Your task to perform on an android device: toggle wifi Image 0: 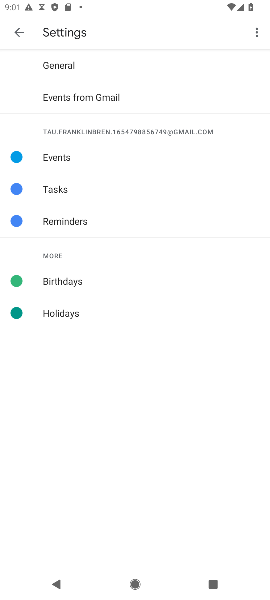
Step 0: press back button
Your task to perform on an android device: toggle wifi Image 1: 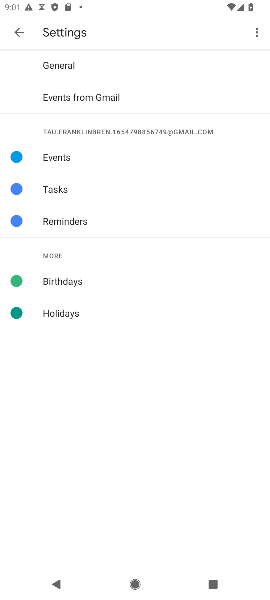
Step 1: press home button
Your task to perform on an android device: toggle wifi Image 2: 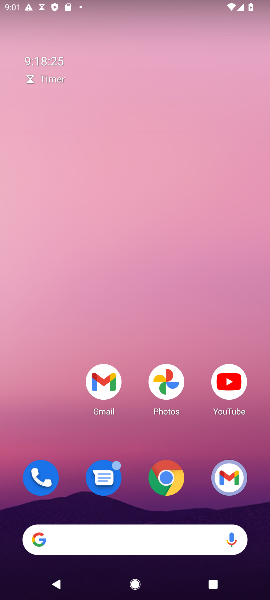
Step 2: drag from (137, 439) to (126, 146)
Your task to perform on an android device: toggle wifi Image 3: 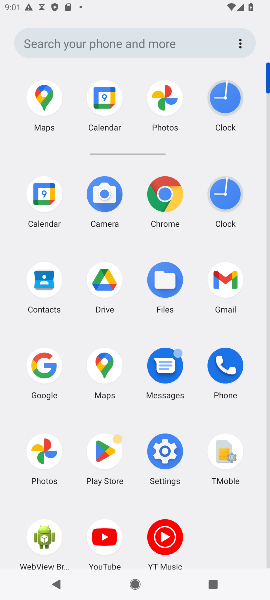
Step 3: click (164, 444)
Your task to perform on an android device: toggle wifi Image 4: 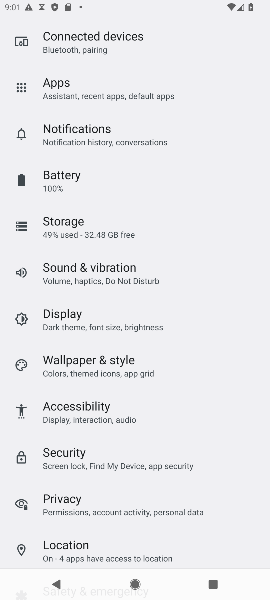
Step 4: drag from (130, 57) to (130, 396)
Your task to perform on an android device: toggle wifi Image 5: 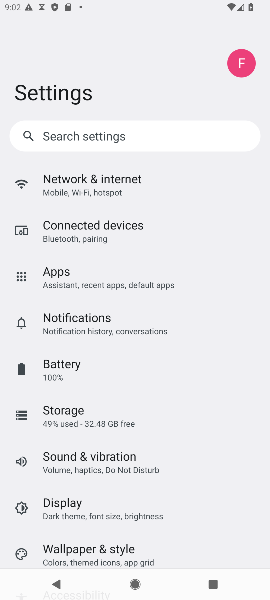
Step 5: click (98, 179)
Your task to perform on an android device: toggle wifi Image 6: 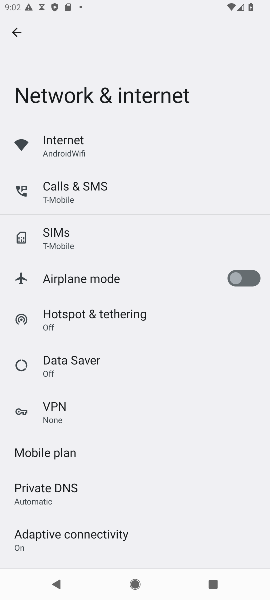
Step 6: click (134, 144)
Your task to perform on an android device: toggle wifi Image 7: 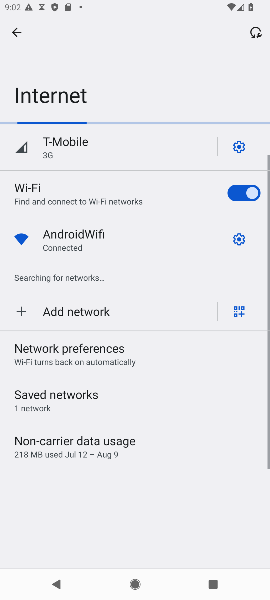
Step 7: click (233, 201)
Your task to perform on an android device: toggle wifi Image 8: 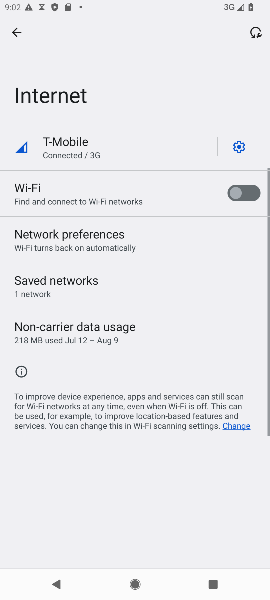
Step 8: task complete